Your task to perform on an android device: Open Google Maps and go to "Timeline" Image 0: 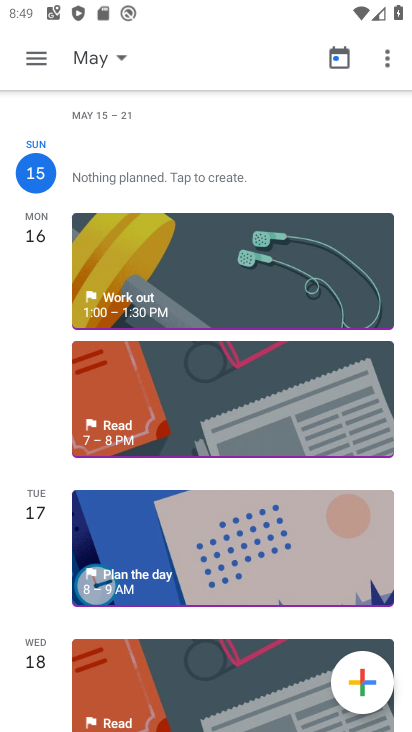
Step 0: press home button
Your task to perform on an android device: Open Google Maps and go to "Timeline" Image 1: 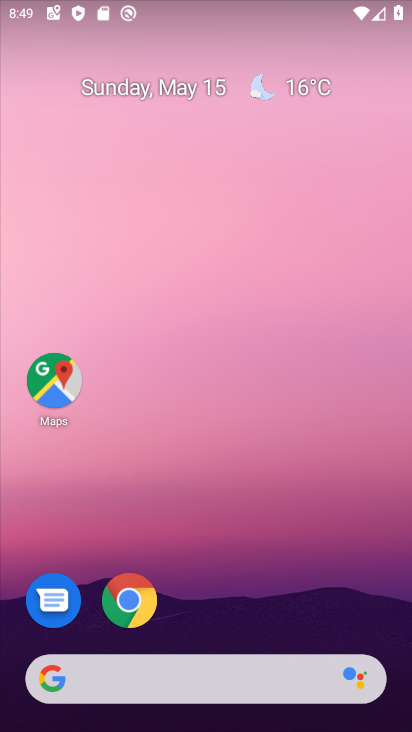
Step 1: click (64, 372)
Your task to perform on an android device: Open Google Maps and go to "Timeline" Image 2: 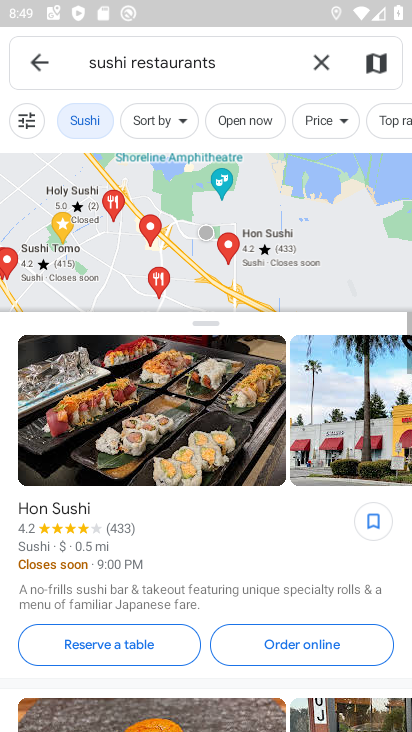
Step 2: click (326, 57)
Your task to perform on an android device: Open Google Maps and go to "Timeline" Image 3: 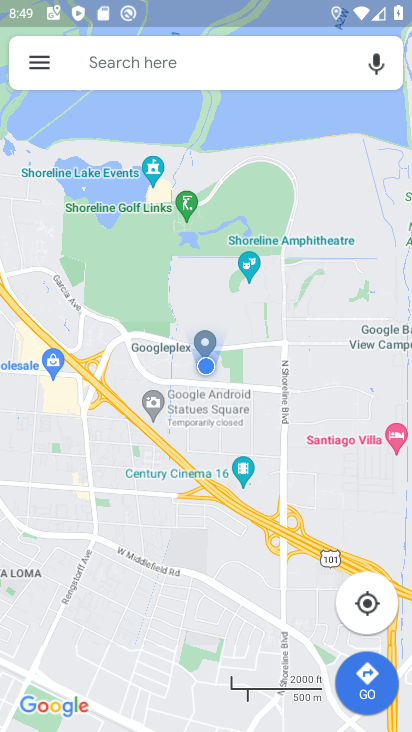
Step 3: click (34, 58)
Your task to perform on an android device: Open Google Maps and go to "Timeline" Image 4: 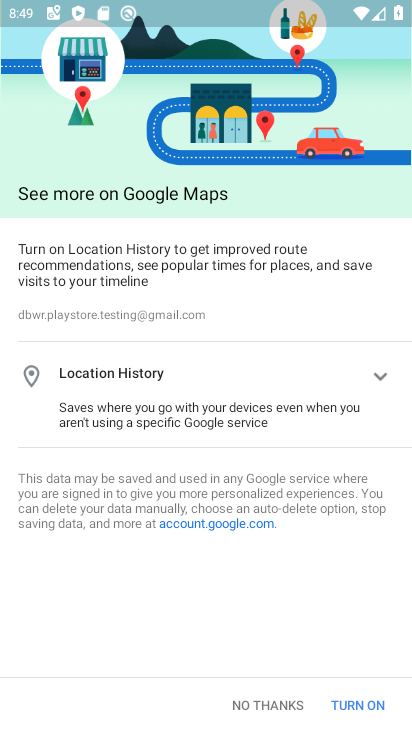
Step 4: click (259, 709)
Your task to perform on an android device: Open Google Maps and go to "Timeline" Image 5: 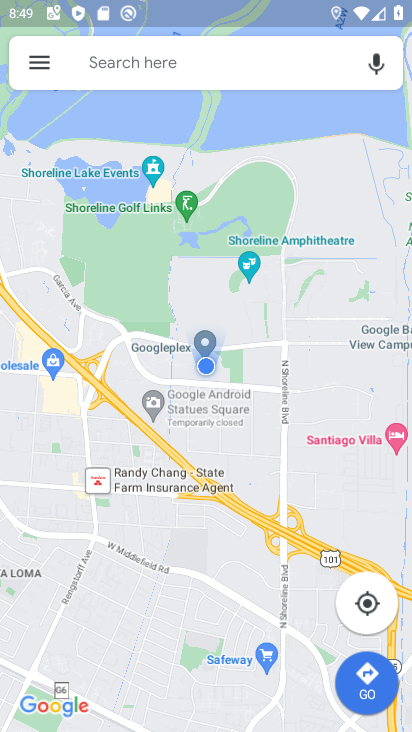
Step 5: click (39, 58)
Your task to perform on an android device: Open Google Maps and go to "Timeline" Image 6: 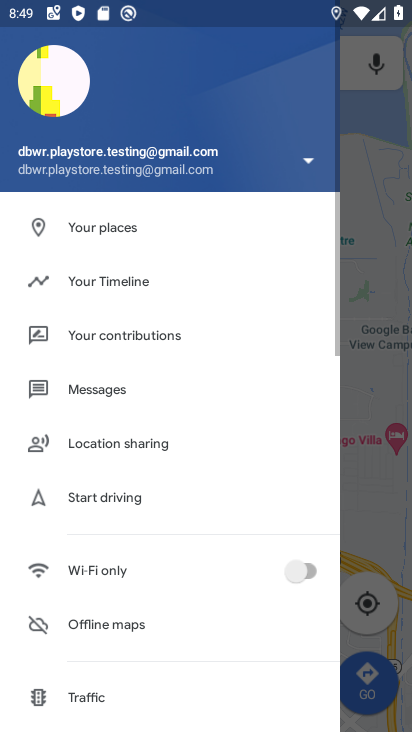
Step 6: click (111, 278)
Your task to perform on an android device: Open Google Maps and go to "Timeline" Image 7: 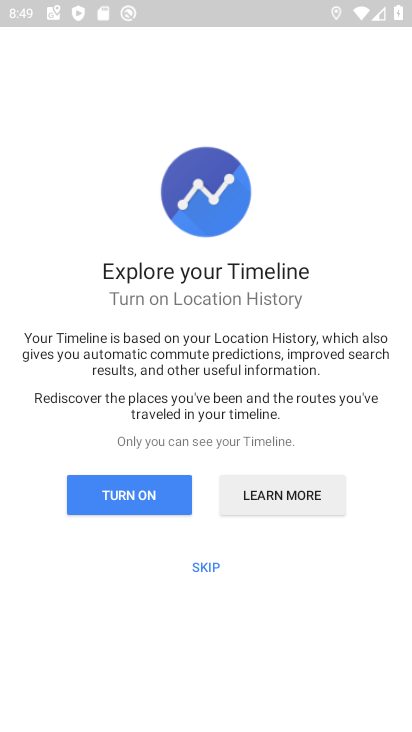
Step 7: click (193, 572)
Your task to perform on an android device: Open Google Maps and go to "Timeline" Image 8: 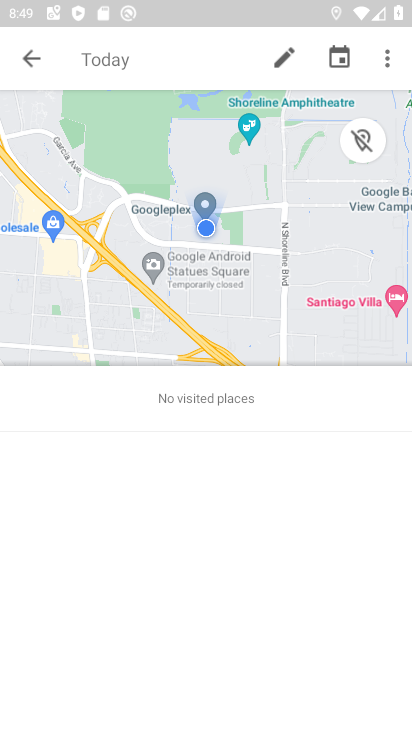
Step 8: task complete